Your task to perform on an android device: What's on my calendar today? Image 0: 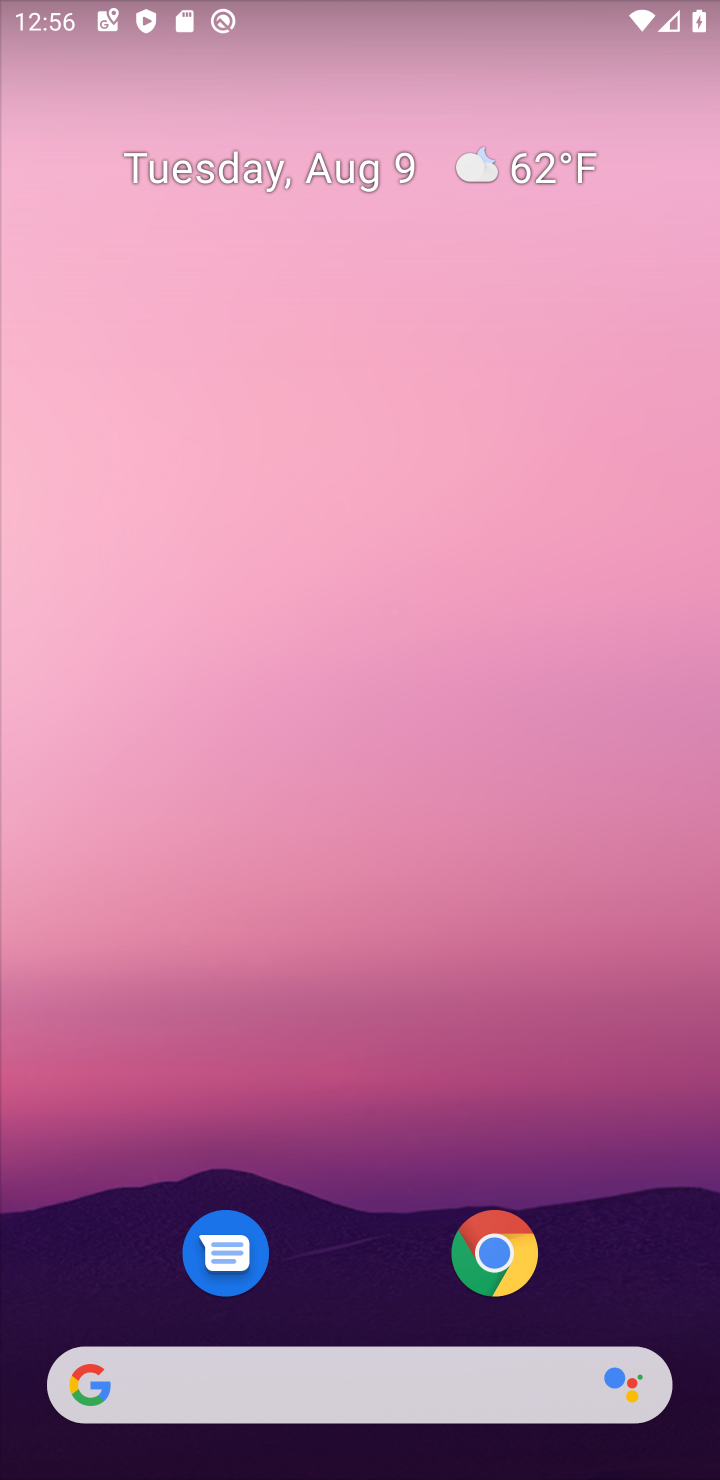
Step 0: drag from (502, 548) to (389, 60)
Your task to perform on an android device: What's on my calendar today? Image 1: 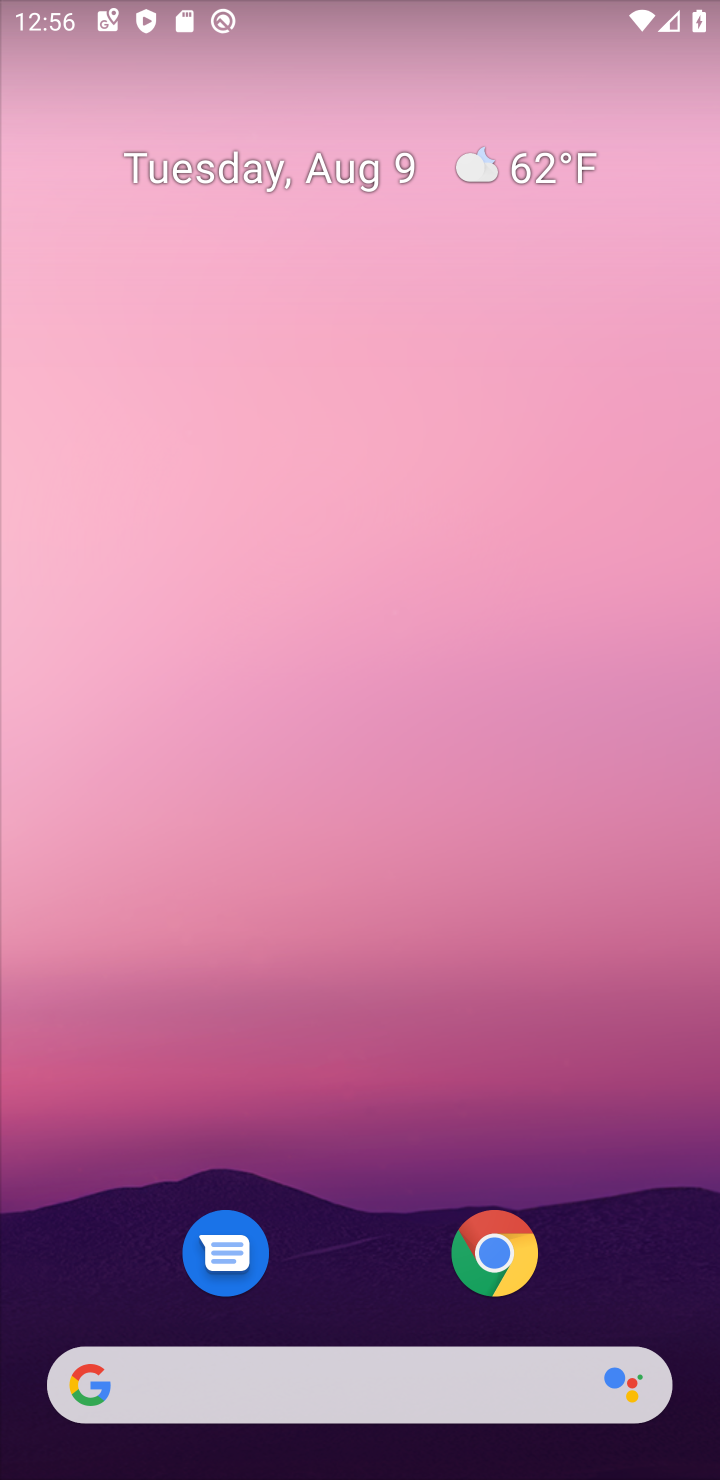
Step 1: drag from (669, 1127) to (484, 133)
Your task to perform on an android device: What's on my calendar today? Image 2: 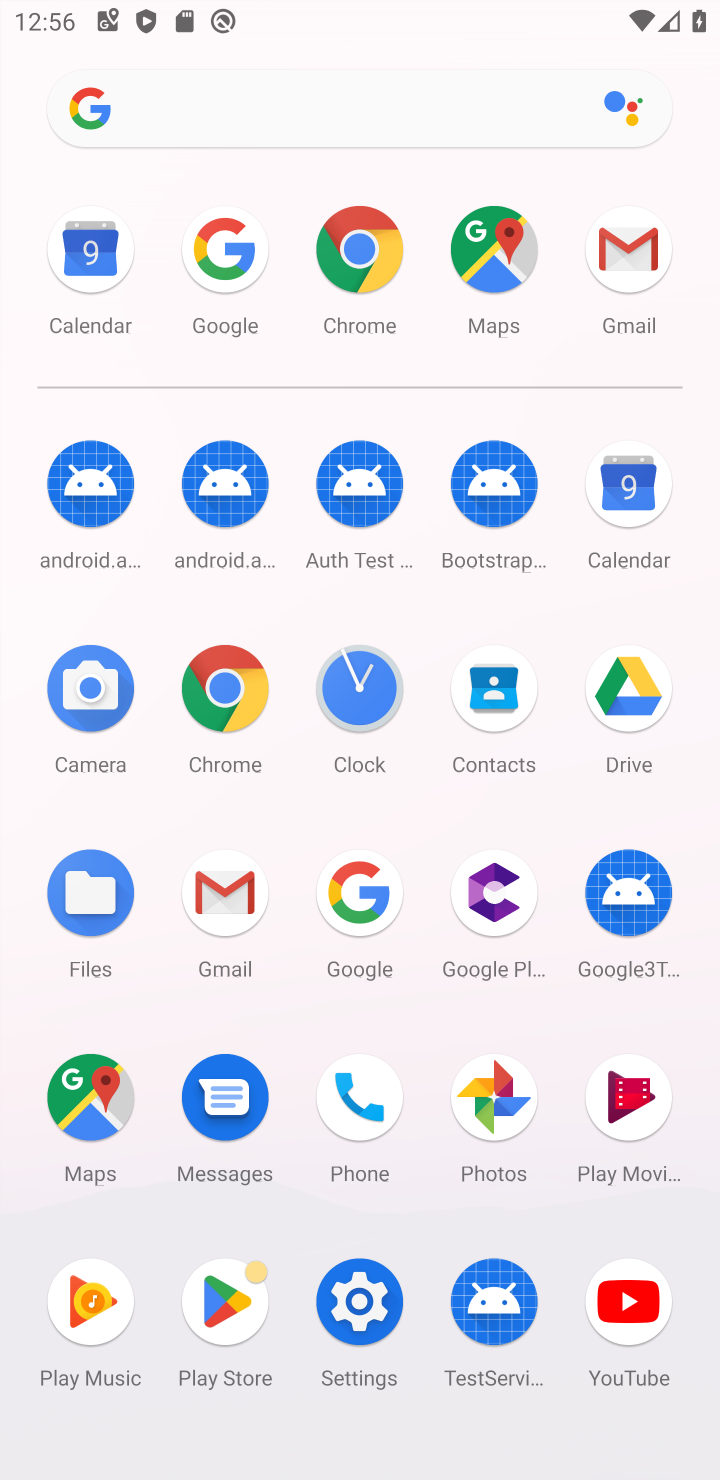
Step 2: click (644, 478)
Your task to perform on an android device: What's on my calendar today? Image 3: 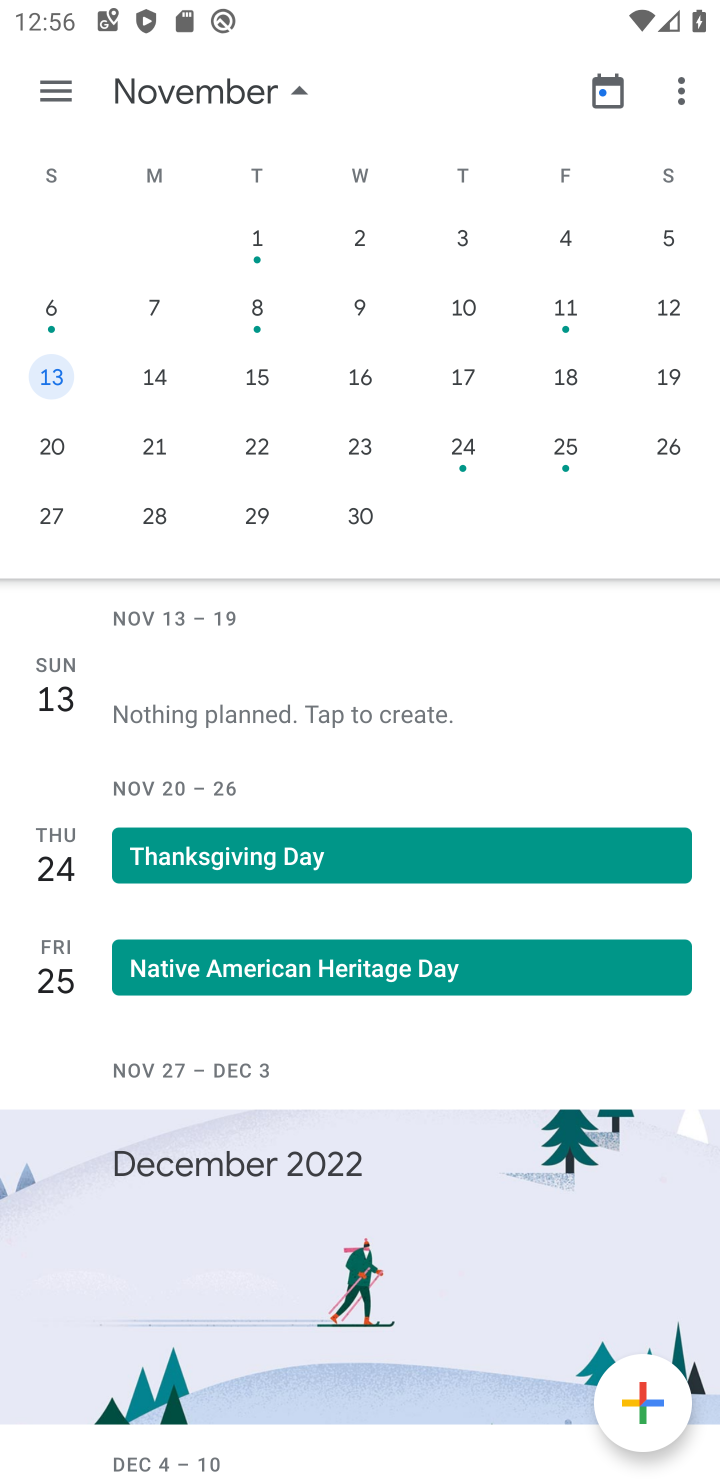
Step 3: task complete